Your task to perform on an android device: Open calendar and show me the third week of next month Image 0: 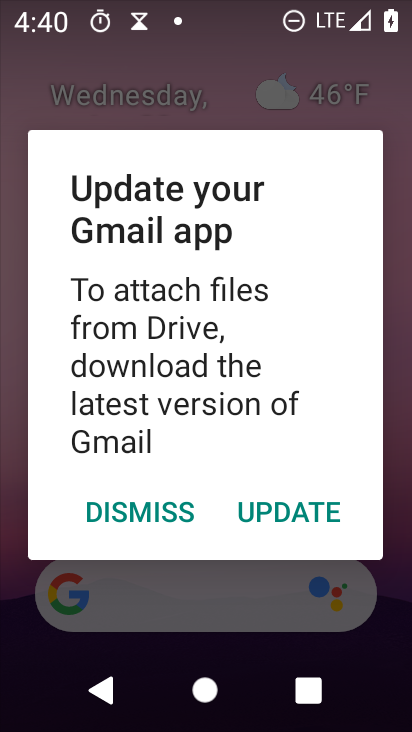
Step 0: press home button
Your task to perform on an android device: Open calendar and show me the third week of next month Image 1: 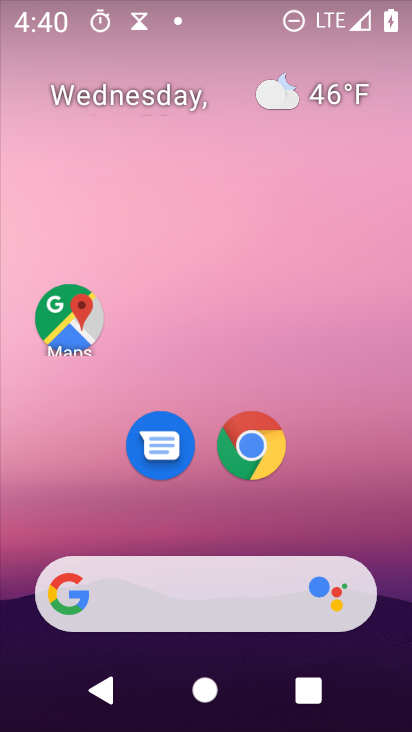
Step 1: drag from (218, 500) to (265, 57)
Your task to perform on an android device: Open calendar and show me the third week of next month Image 2: 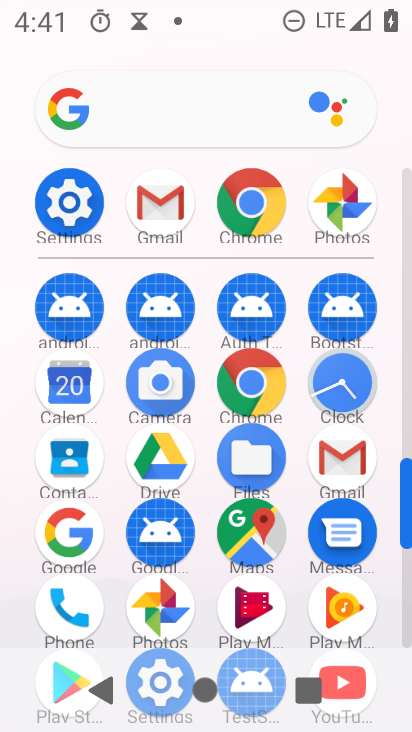
Step 2: click (68, 380)
Your task to perform on an android device: Open calendar and show me the third week of next month Image 3: 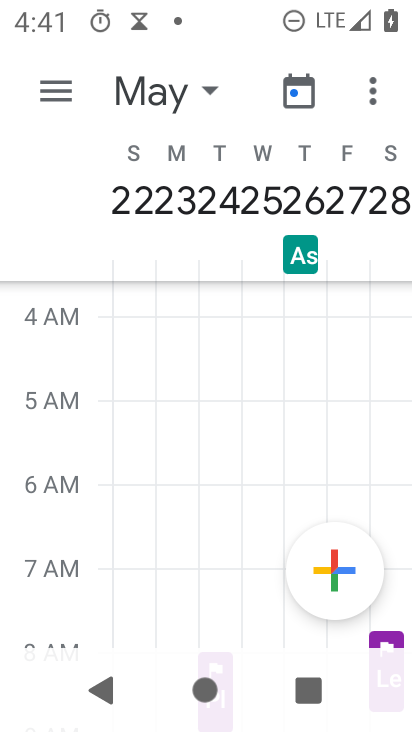
Step 3: click (300, 94)
Your task to perform on an android device: Open calendar and show me the third week of next month Image 4: 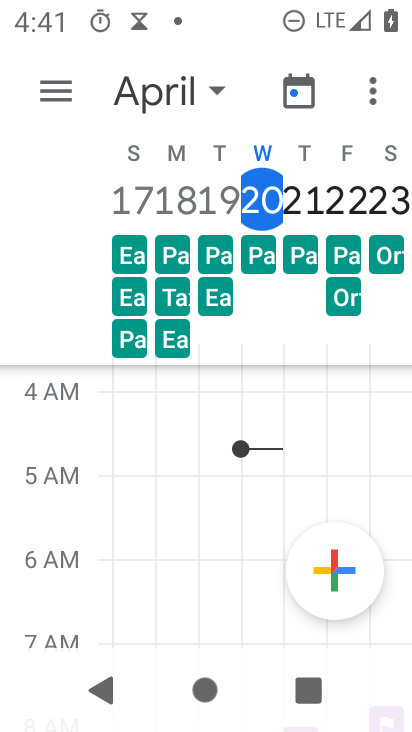
Step 4: click (212, 92)
Your task to perform on an android device: Open calendar and show me the third week of next month Image 5: 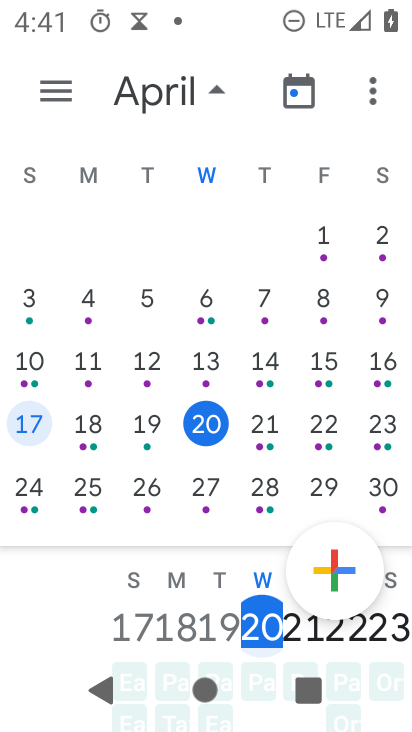
Step 5: drag from (359, 399) to (13, 359)
Your task to perform on an android device: Open calendar and show me the third week of next month Image 6: 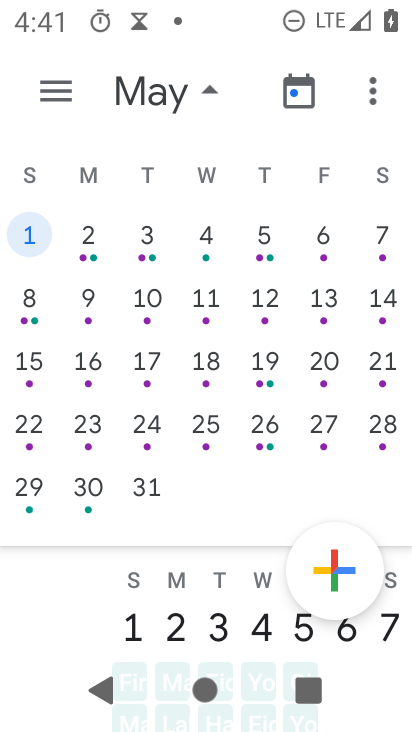
Step 6: click (95, 362)
Your task to perform on an android device: Open calendar and show me the third week of next month Image 7: 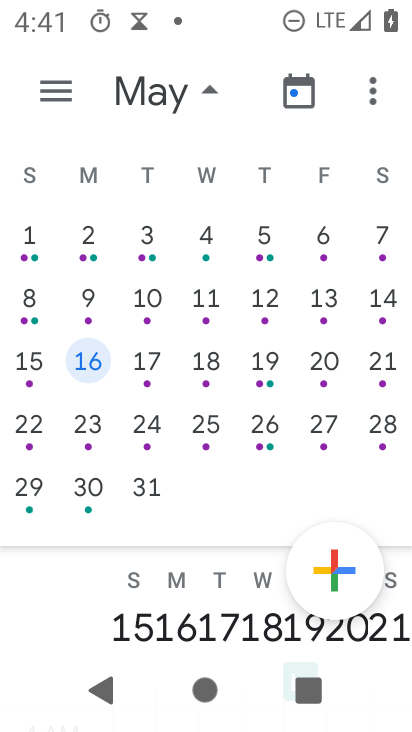
Step 7: click (53, 98)
Your task to perform on an android device: Open calendar and show me the third week of next month Image 8: 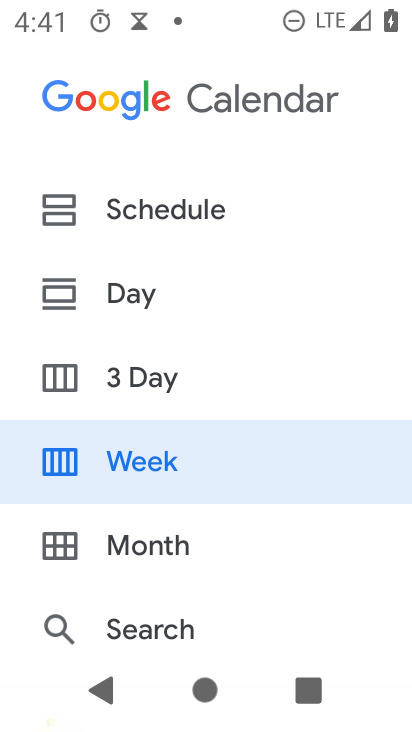
Step 8: click (157, 468)
Your task to perform on an android device: Open calendar and show me the third week of next month Image 9: 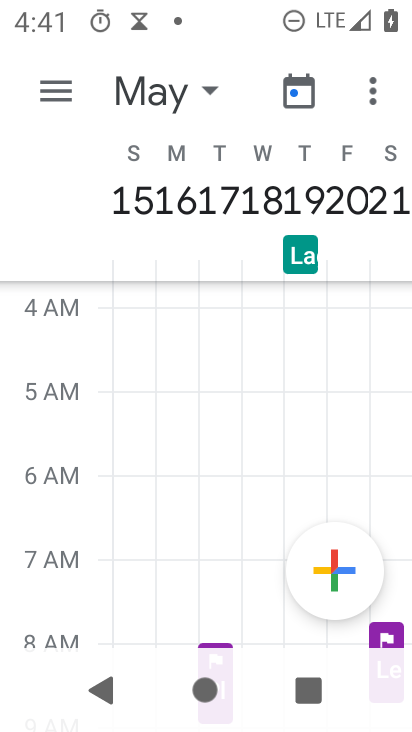
Step 9: task complete